Your task to perform on an android device: Go to Maps Image 0: 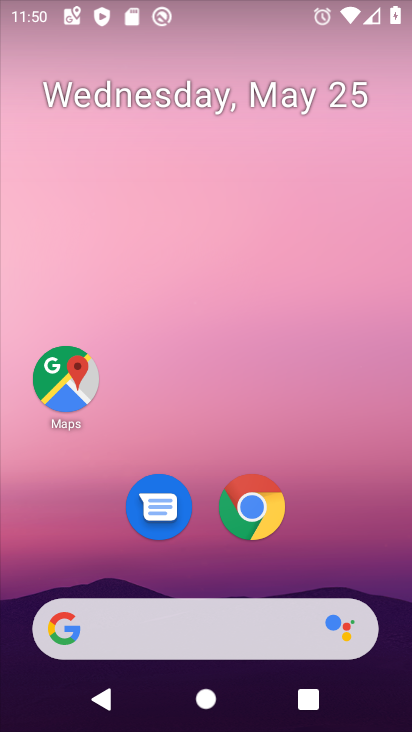
Step 0: click (66, 380)
Your task to perform on an android device: Go to Maps Image 1: 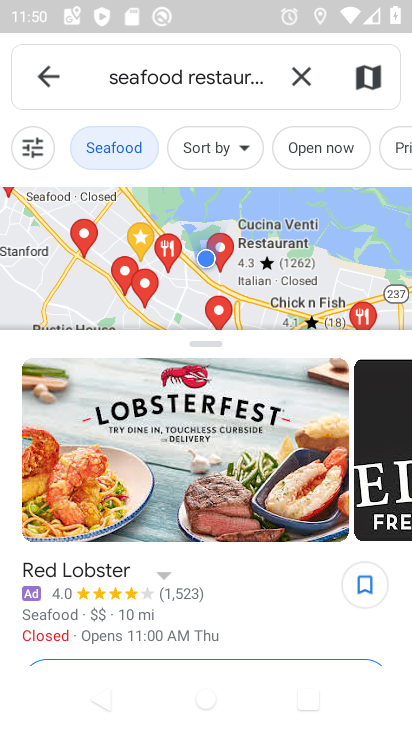
Step 1: click (305, 73)
Your task to perform on an android device: Go to Maps Image 2: 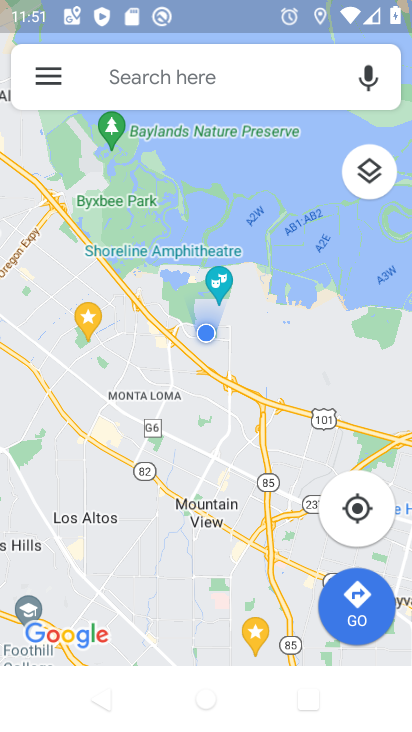
Step 2: task complete